Your task to perform on an android device: Open calendar and show me the third week of next month Image 0: 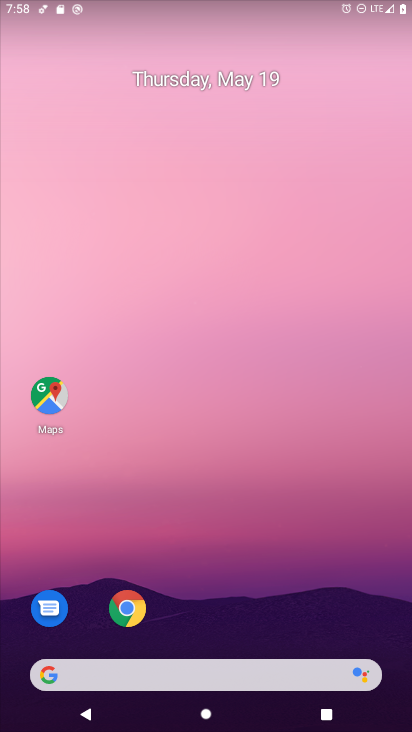
Step 0: drag from (385, 663) to (317, 149)
Your task to perform on an android device: Open calendar and show me the third week of next month Image 1: 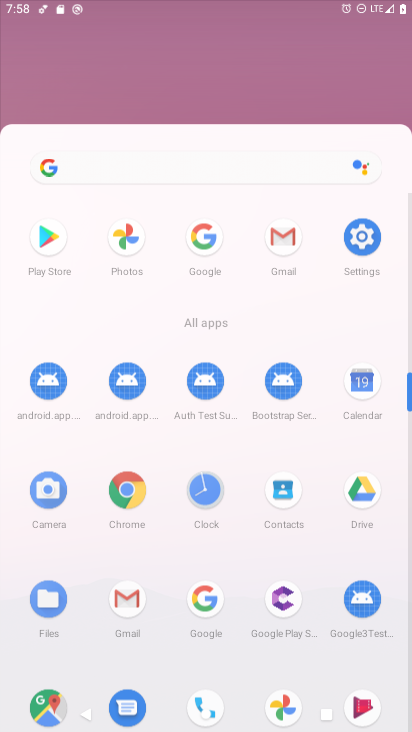
Step 1: click (317, 149)
Your task to perform on an android device: Open calendar and show me the third week of next month Image 2: 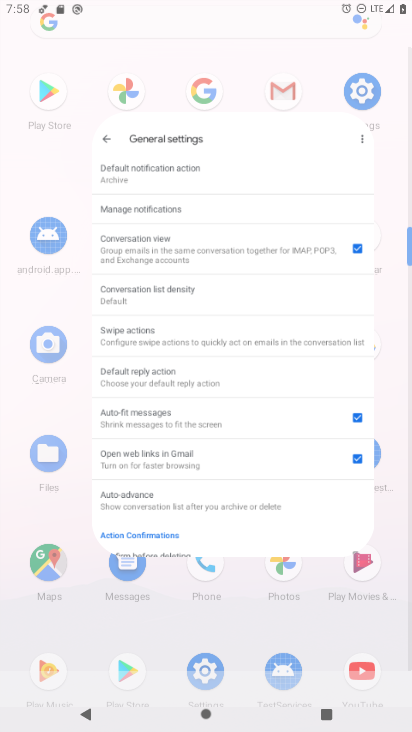
Step 2: click (317, 149)
Your task to perform on an android device: Open calendar and show me the third week of next month Image 3: 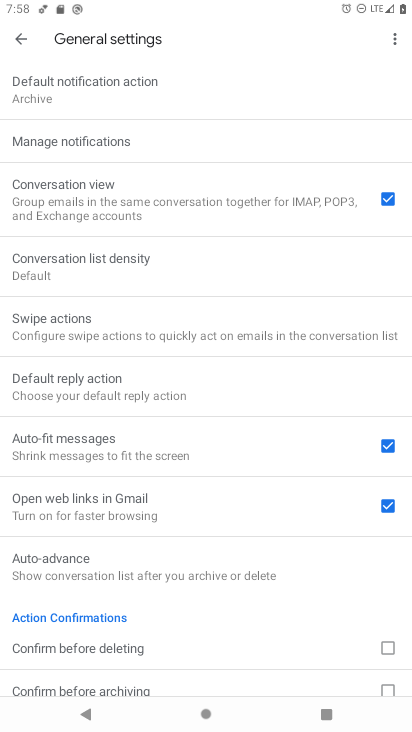
Step 3: press back button
Your task to perform on an android device: Open calendar and show me the third week of next month Image 4: 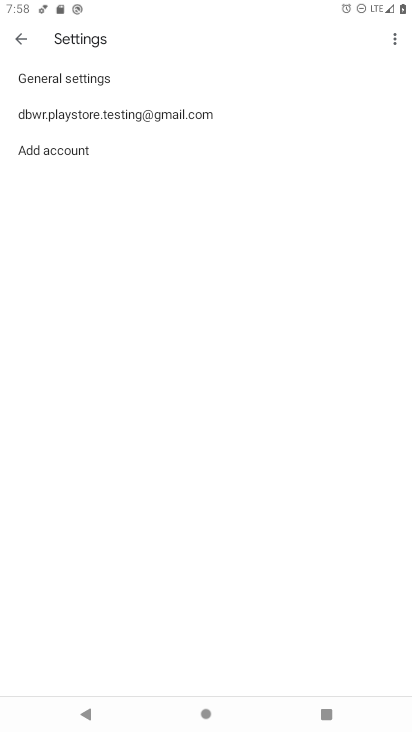
Step 4: press back button
Your task to perform on an android device: Open calendar and show me the third week of next month Image 5: 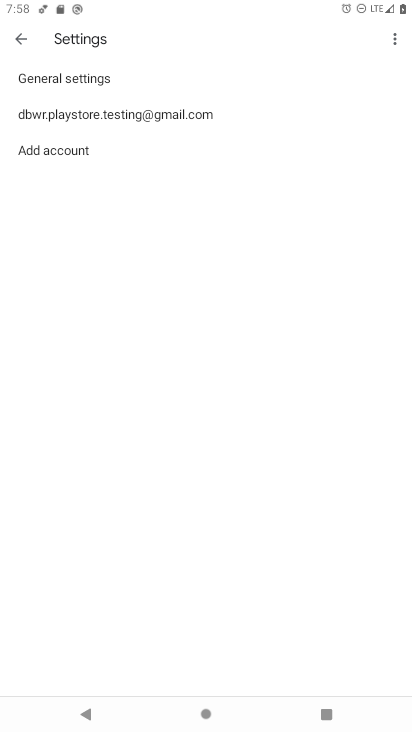
Step 5: press back button
Your task to perform on an android device: Open calendar and show me the third week of next month Image 6: 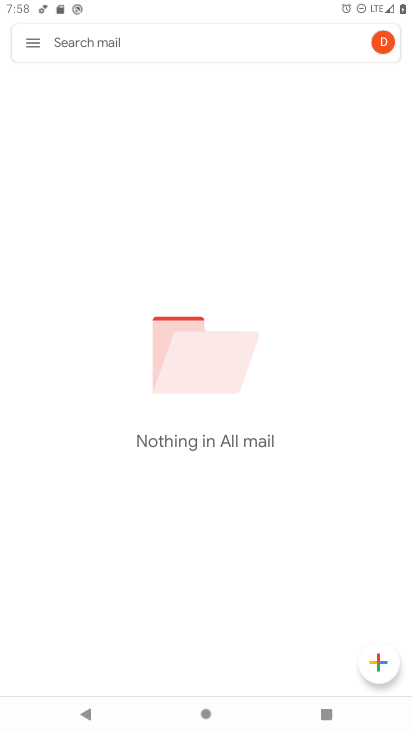
Step 6: press back button
Your task to perform on an android device: Open calendar and show me the third week of next month Image 7: 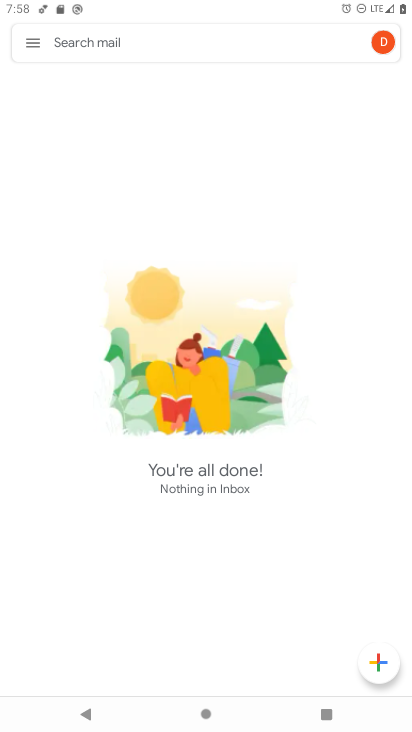
Step 7: press back button
Your task to perform on an android device: Open calendar and show me the third week of next month Image 8: 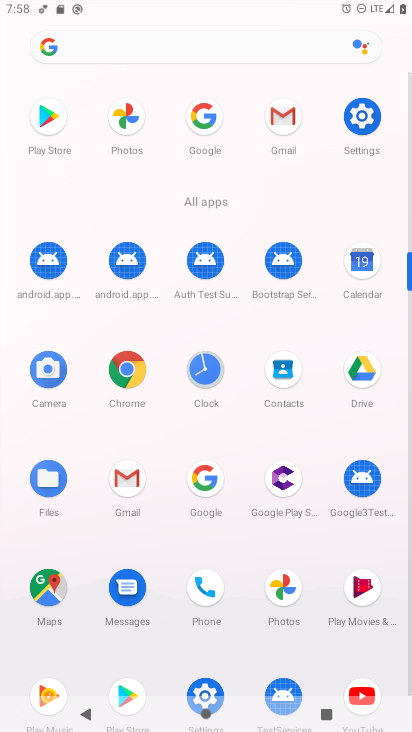
Step 8: click (372, 250)
Your task to perform on an android device: Open calendar and show me the third week of next month Image 9: 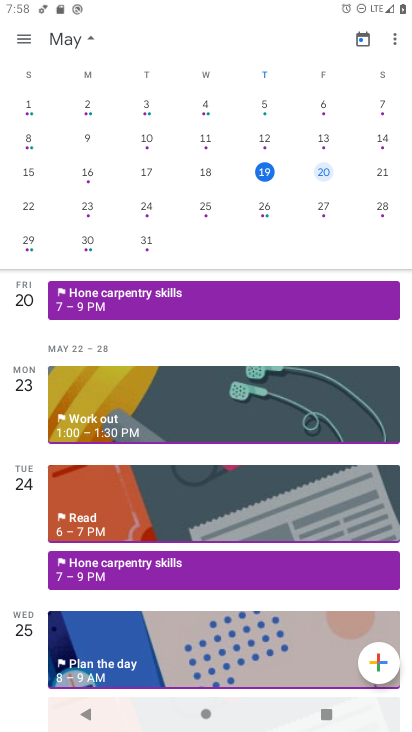
Step 9: drag from (403, 143) to (108, 181)
Your task to perform on an android device: Open calendar and show me the third week of next month Image 10: 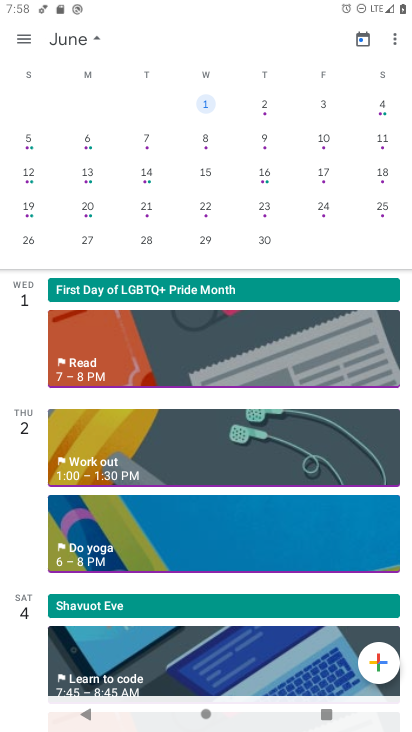
Step 10: click (208, 169)
Your task to perform on an android device: Open calendar and show me the third week of next month Image 11: 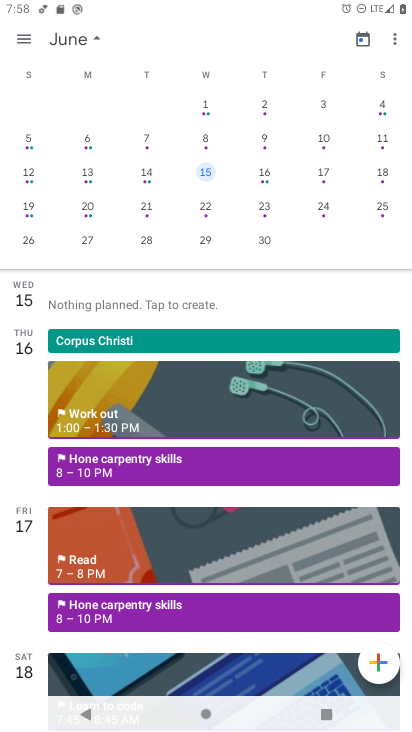
Step 11: click (20, 35)
Your task to perform on an android device: Open calendar and show me the third week of next month Image 12: 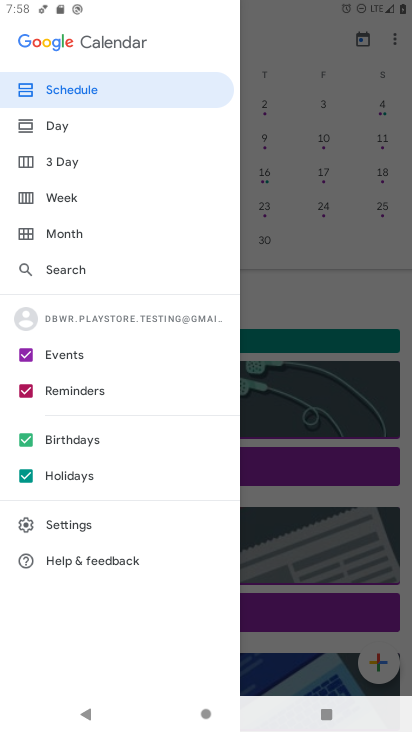
Step 12: click (55, 197)
Your task to perform on an android device: Open calendar and show me the third week of next month Image 13: 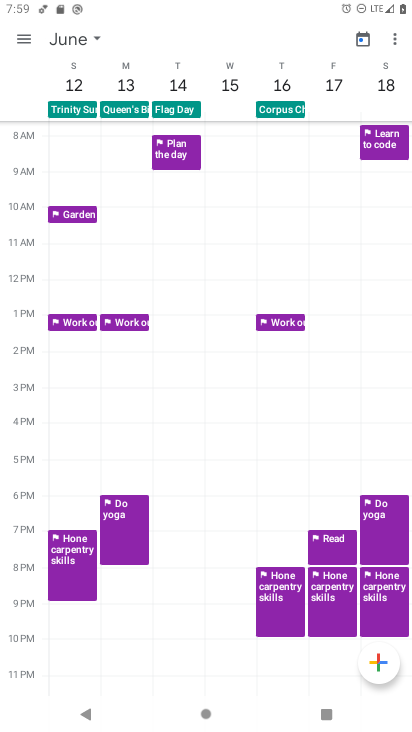
Step 13: task complete